Your task to perform on an android device: change timer sound Image 0: 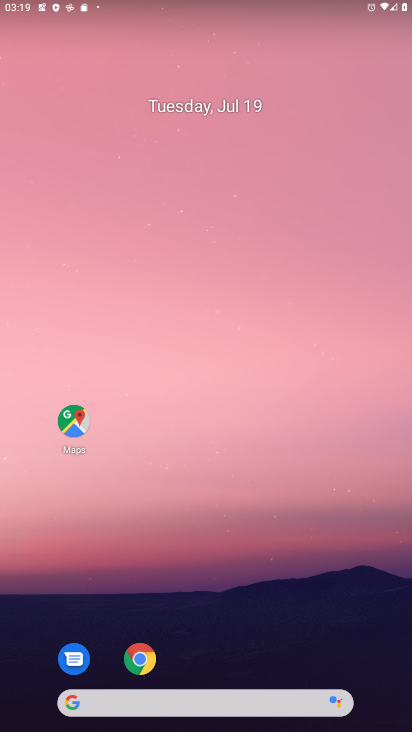
Step 0: press home button
Your task to perform on an android device: change timer sound Image 1: 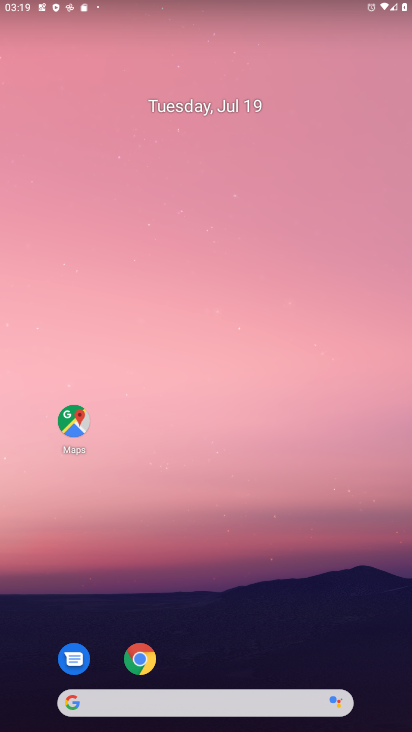
Step 1: drag from (336, 631) to (380, 43)
Your task to perform on an android device: change timer sound Image 2: 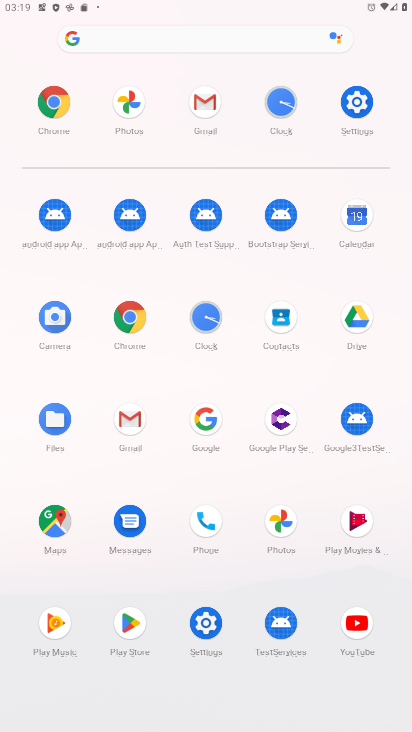
Step 2: click (202, 635)
Your task to perform on an android device: change timer sound Image 3: 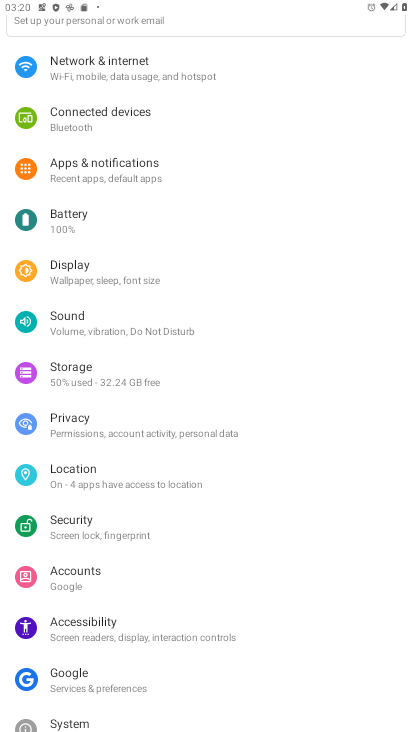
Step 3: press home button
Your task to perform on an android device: change timer sound Image 4: 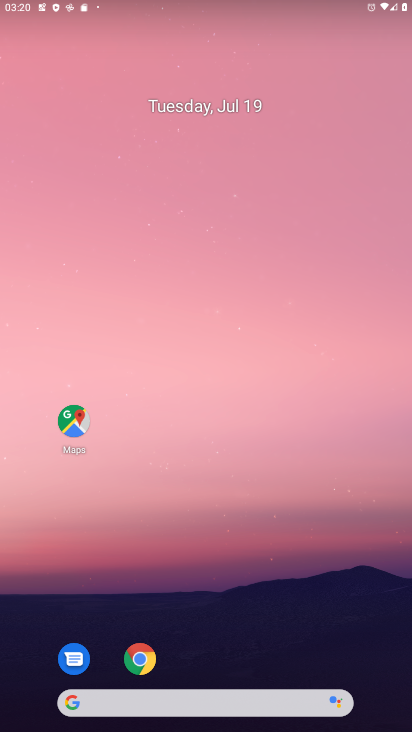
Step 4: drag from (162, 577) to (316, 152)
Your task to perform on an android device: change timer sound Image 5: 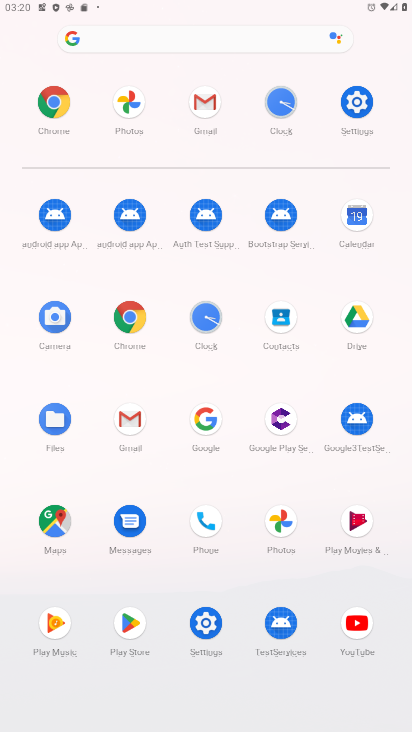
Step 5: click (196, 341)
Your task to perform on an android device: change timer sound Image 6: 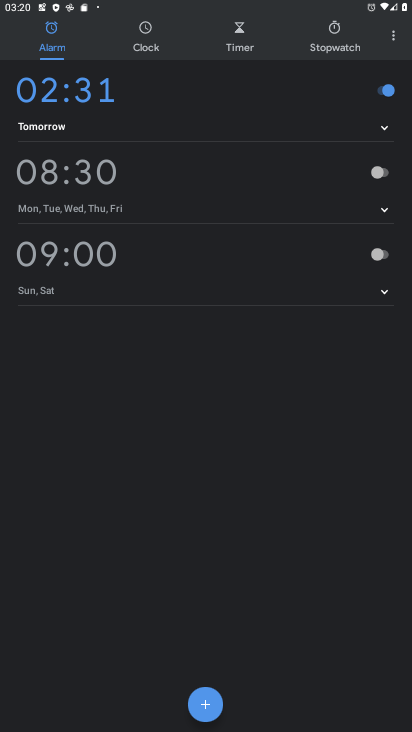
Step 6: drag from (394, 25) to (328, 66)
Your task to perform on an android device: change timer sound Image 7: 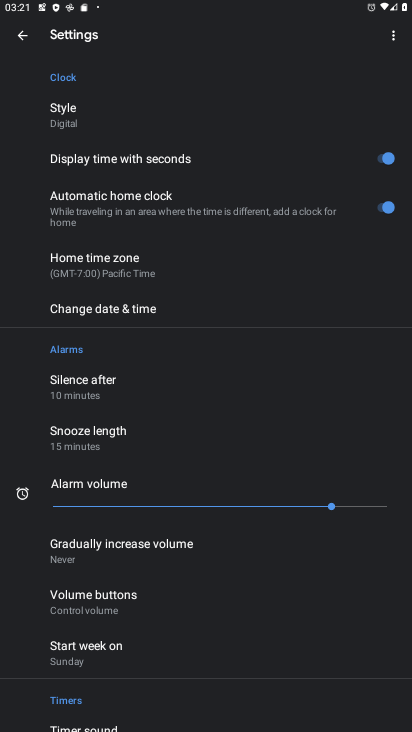
Step 7: drag from (132, 628) to (166, 340)
Your task to perform on an android device: change timer sound Image 8: 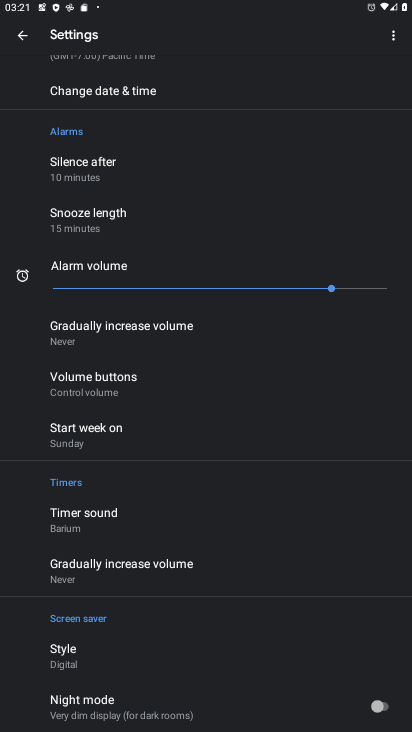
Step 8: drag from (100, 598) to (256, 265)
Your task to perform on an android device: change timer sound Image 9: 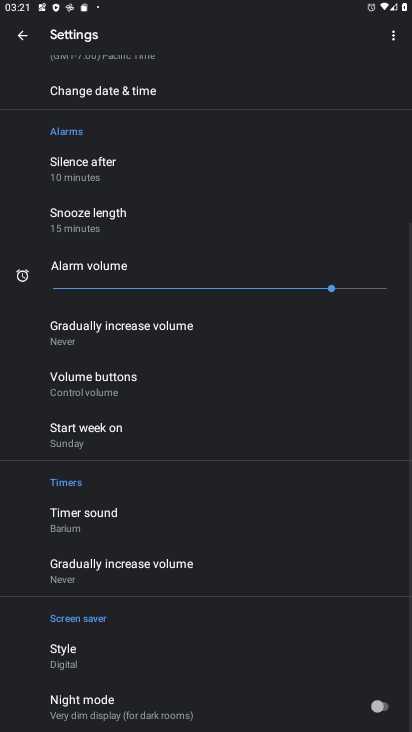
Step 9: drag from (290, 475) to (353, 58)
Your task to perform on an android device: change timer sound Image 10: 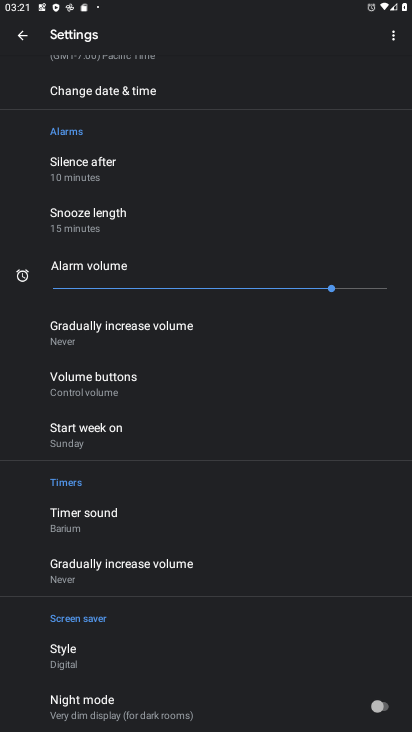
Step 10: drag from (262, 381) to (246, 583)
Your task to perform on an android device: change timer sound Image 11: 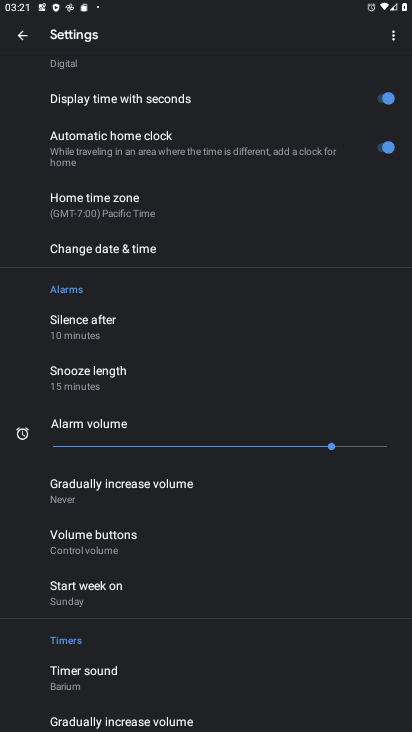
Step 11: drag from (141, 259) to (252, 159)
Your task to perform on an android device: change timer sound Image 12: 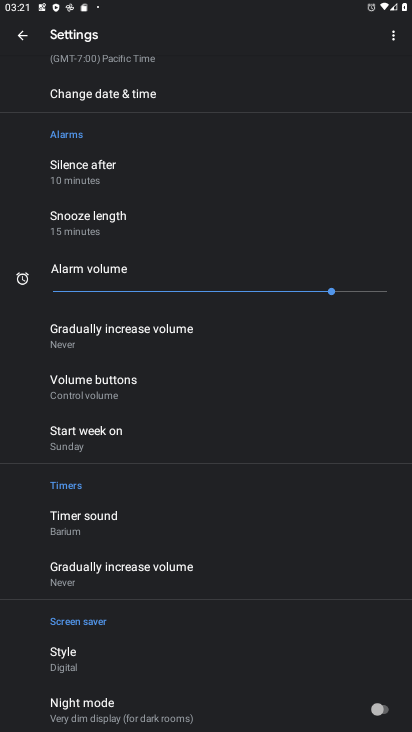
Step 12: click (32, 507)
Your task to perform on an android device: change timer sound Image 13: 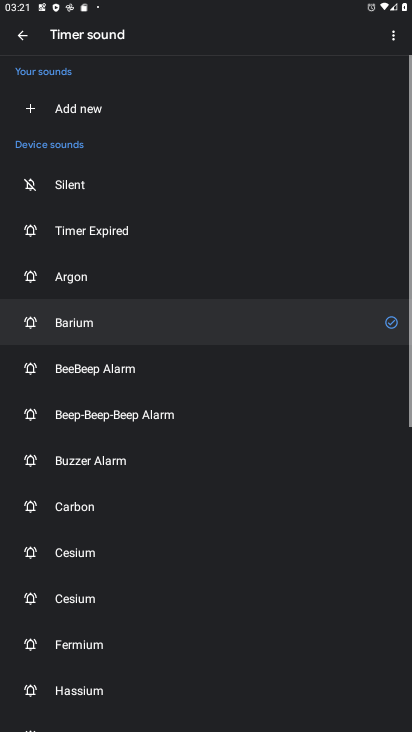
Step 13: click (114, 396)
Your task to perform on an android device: change timer sound Image 14: 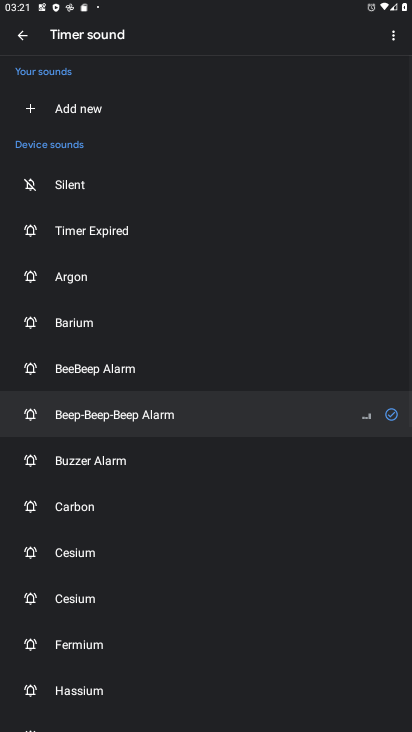
Step 14: task complete